Your task to perform on an android device: Open accessibility settings Image 0: 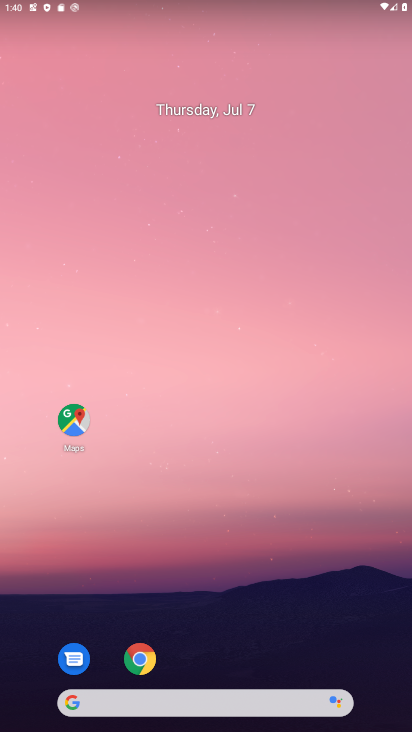
Step 0: press home button
Your task to perform on an android device: Open accessibility settings Image 1: 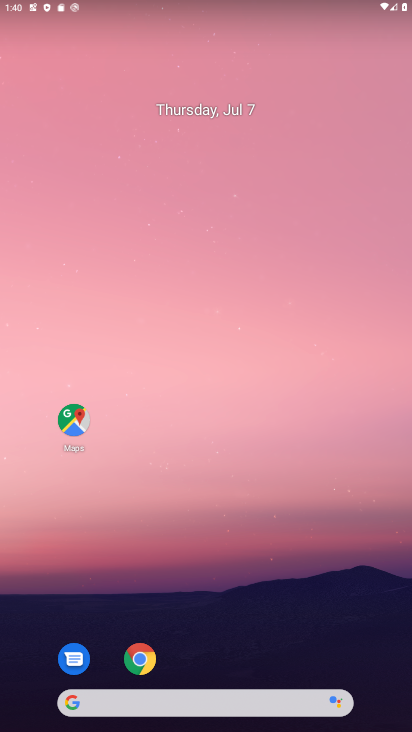
Step 1: drag from (214, 664) to (235, 59)
Your task to perform on an android device: Open accessibility settings Image 2: 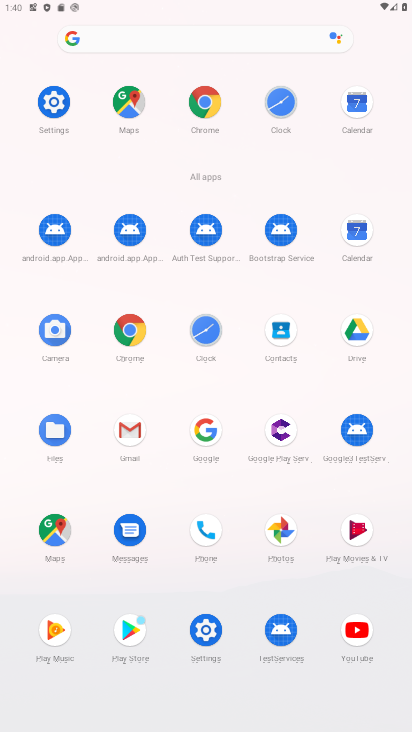
Step 2: click (49, 94)
Your task to perform on an android device: Open accessibility settings Image 3: 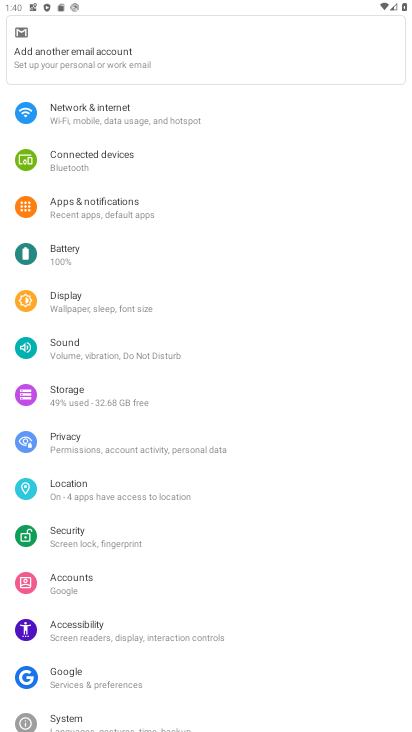
Step 3: click (115, 571)
Your task to perform on an android device: Open accessibility settings Image 4: 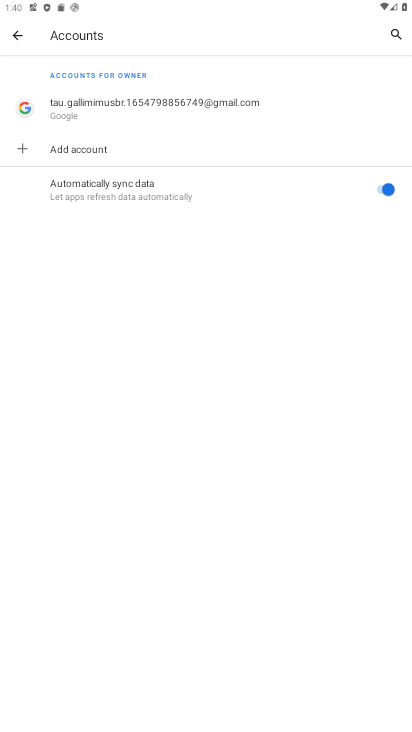
Step 4: click (18, 31)
Your task to perform on an android device: Open accessibility settings Image 5: 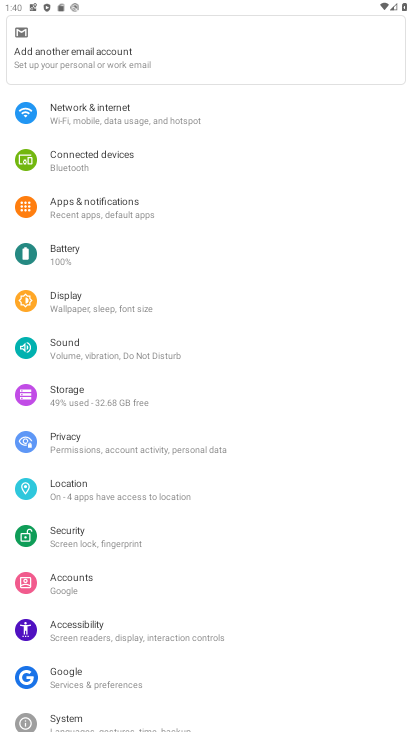
Step 5: click (101, 619)
Your task to perform on an android device: Open accessibility settings Image 6: 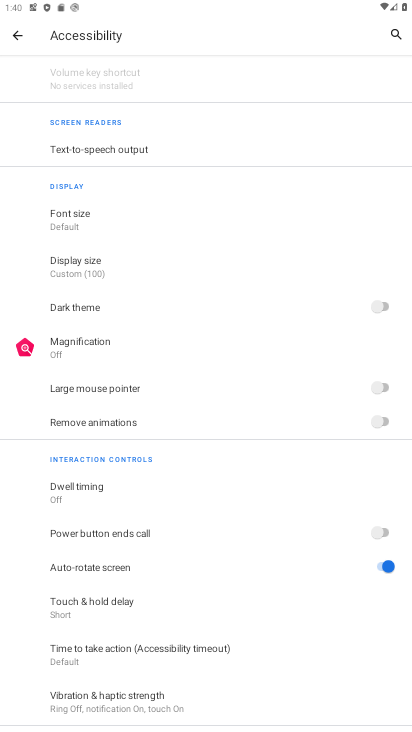
Step 6: task complete